Your task to perform on an android device: turn smart compose on in the gmail app Image 0: 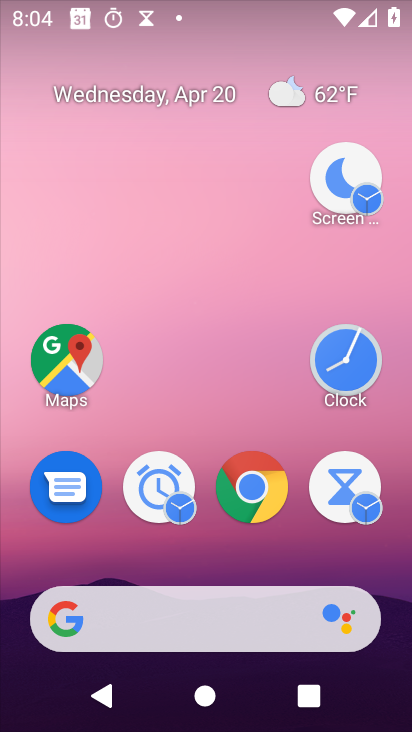
Step 0: drag from (268, 699) to (95, 29)
Your task to perform on an android device: turn smart compose on in the gmail app Image 1: 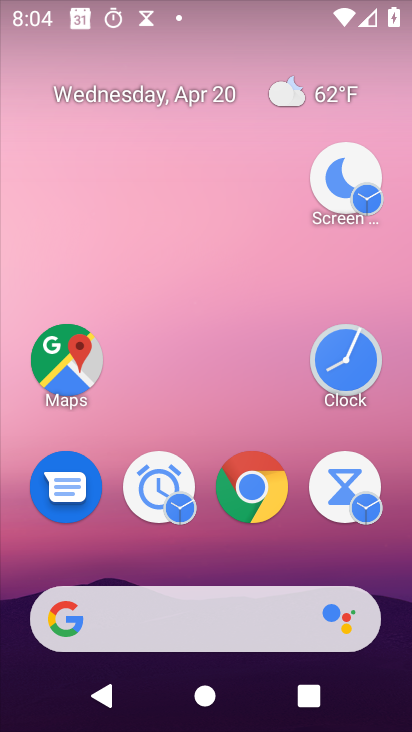
Step 1: drag from (178, 493) to (15, 76)
Your task to perform on an android device: turn smart compose on in the gmail app Image 2: 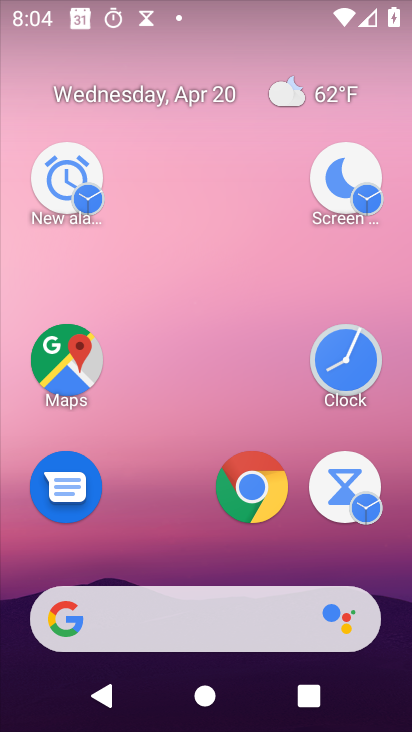
Step 2: drag from (171, 336) to (132, 112)
Your task to perform on an android device: turn smart compose on in the gmail app Image 3: 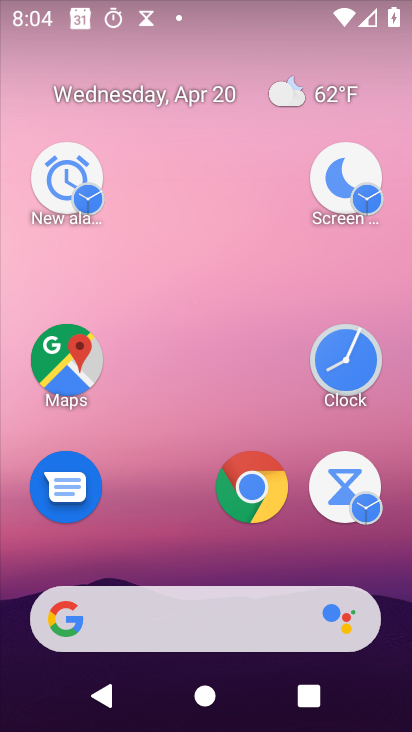
Step 3: drag from (265, 588) to (175, 378)
Your task to perform on an android device: turn smart compose on in the gmail app Image 4: 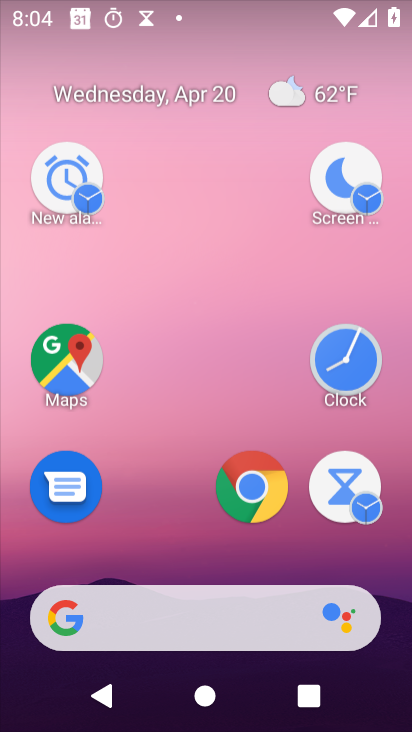
Step 4: drag from (368, 674) to (125, 191)
Your task to perform on an android device: turn smart compose on in the gmail app Image 5: 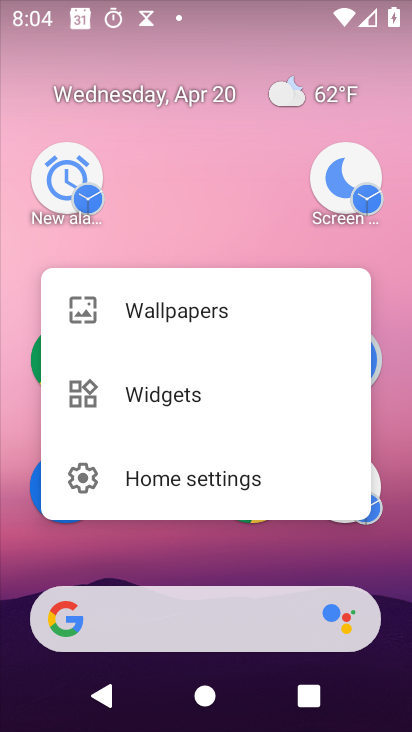
Step 5: drag from (179, 175) to (98, 204)
Your task to perform on an android device: turn smart compose on in the gmail app Image 6: 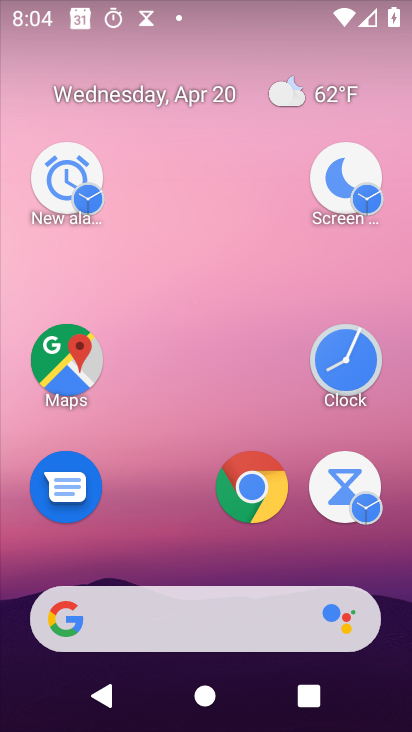
Step 6: click (177, 187)
Your task to perform on an android device: turn smart compose on in the gmail app Image 7: 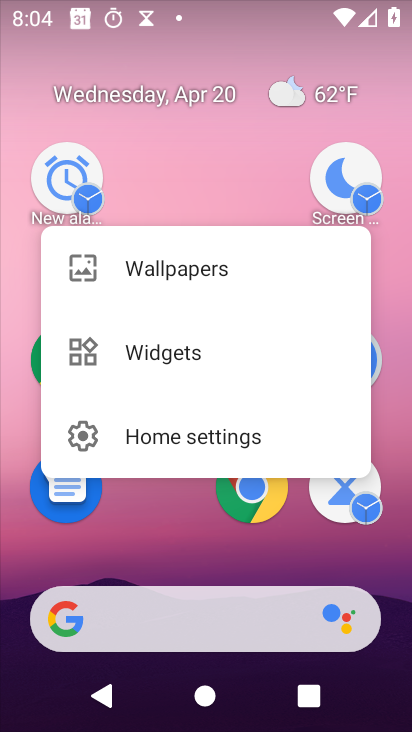
Step 7: drag from (257, 546) to (144, 102)
Your task to perform on an android device: turn smart compose on in the gmail app Image 8: 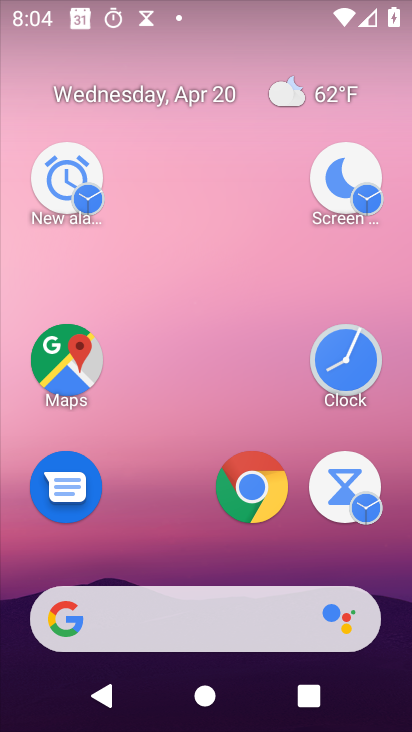
Step 8: click (179, 159)
Your task to perform on an android device: turn smart compose on in the gmail app Image 9: 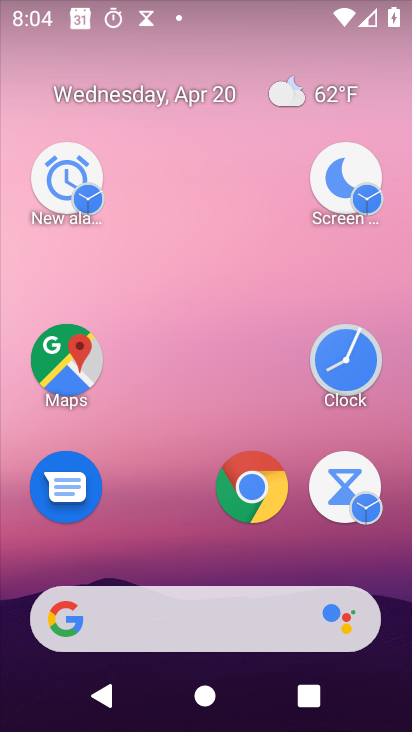
Step 9: drag from (140, 379) to (115, 176)
Your task to perform on an android device: turn smart compose on in the gmail app Image 10: 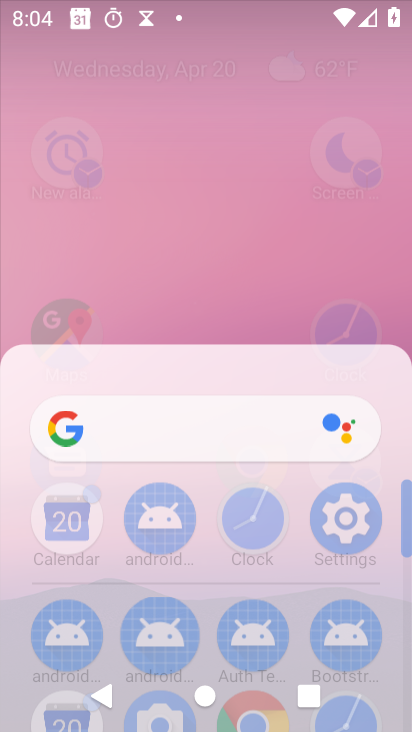
Step 10: drag from (274, 684) to (210, 496)
Your task to perform on an android device: turn smart compose on in the gmail app Image 11: 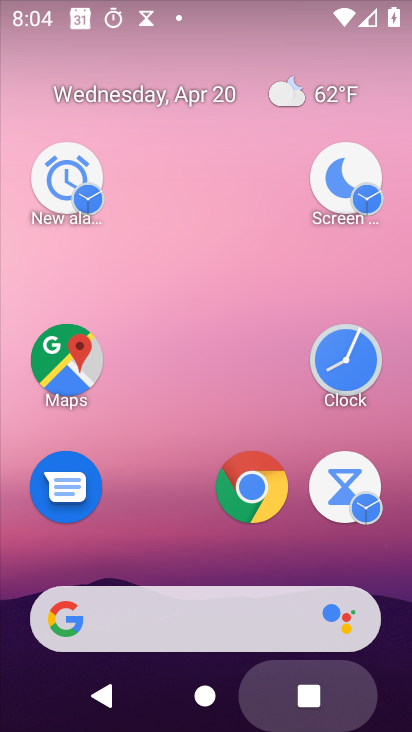
Step 11: drag from (238, 609) to (131, 195)
Your task to perform on an android device: turn smart compose on in the gmail app Image 12: 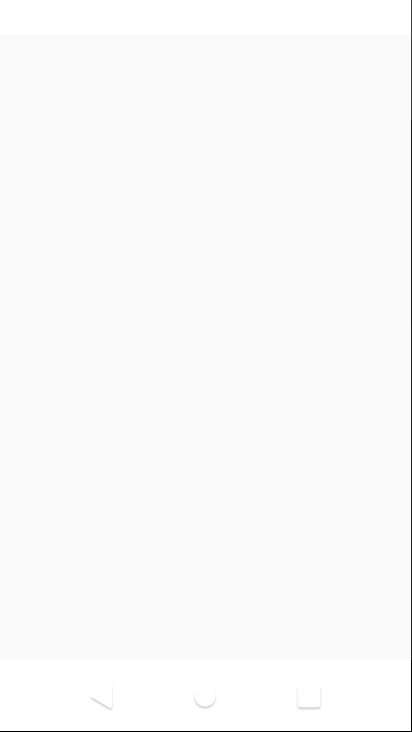
Step 12: drag from (238, 651) to (108, 182)
Your task to perform on an android device: turn smart compose on in the gmail app Image 13: 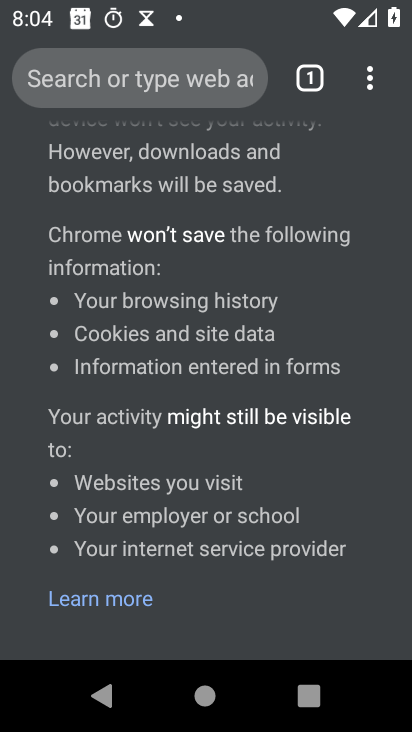
Step 13: press home button
Your task to perform on an android device: turn smart compose on in the gmail app Image 14: 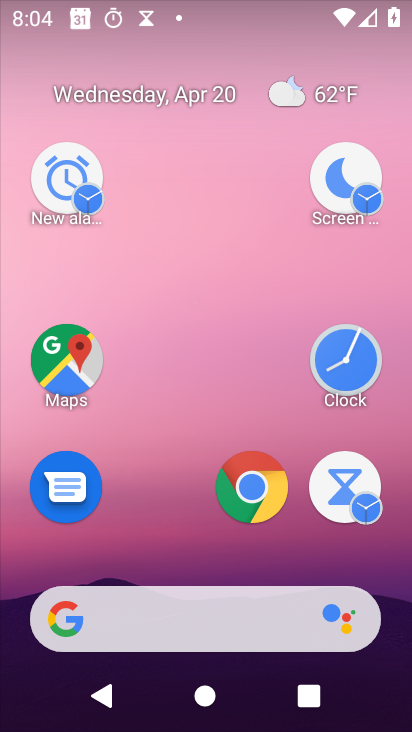
Step 14: drag from (236, 722) to (137, 271)
Your task to perform on an android device: turn smart compose on in the gmail app Image 15: 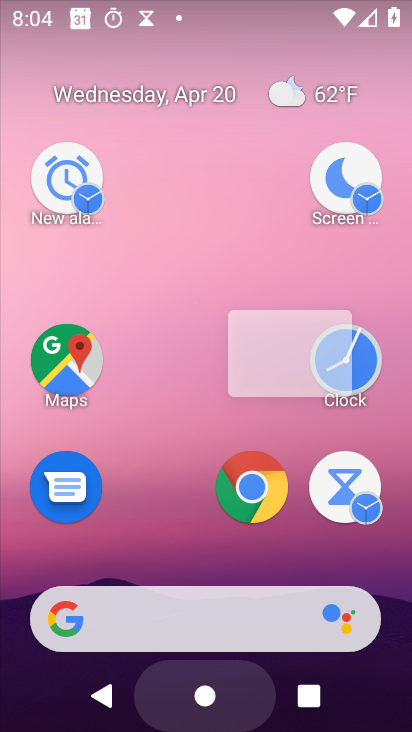
Step 15: drag from (342, 547) to (198, 288)
Your task to perform on an android device: turn smart compose on in the gmail app Image 16: 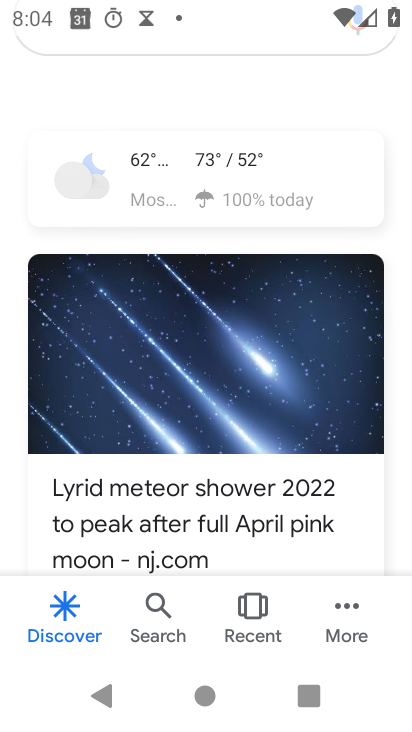
Step 16: press home button
Your task to perform on an android device: turn smart compose on in the gmail app Image 17: 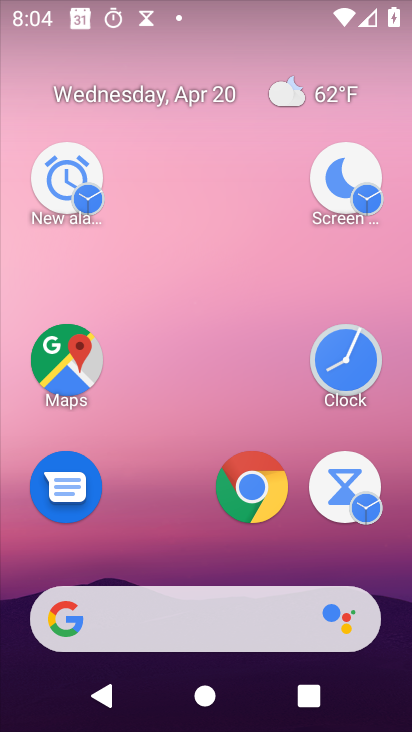
Step 17: drag from (349, 568) to (82, 139)
Your task to perform on an android device: turn smart compose on in the gmail app Image 18: 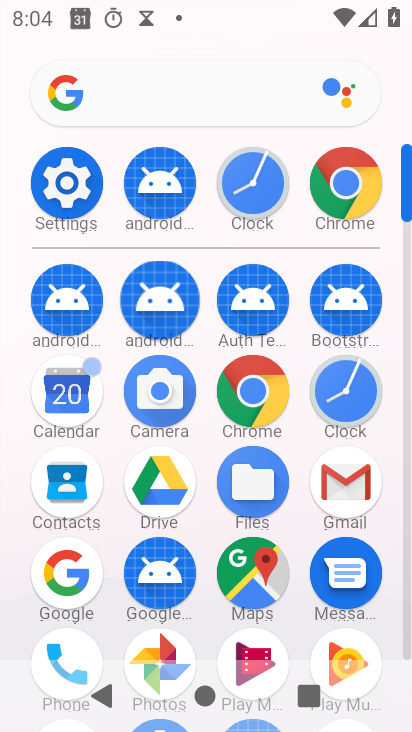
Step 18: drag from (302, 520) to (99, 225)
Your task to perform on an android device: turn smart compose on in the gmail app Image 19: 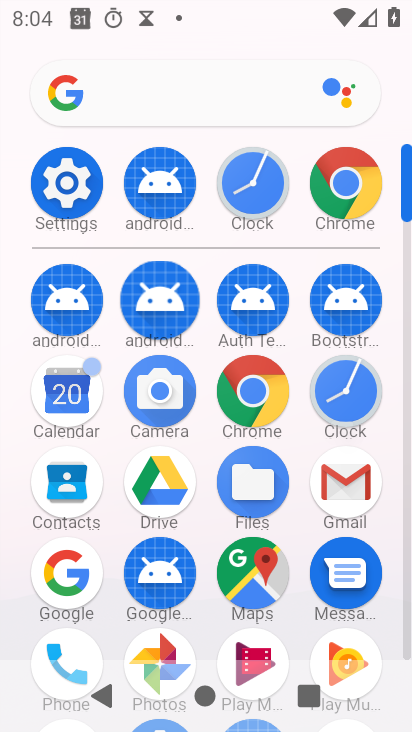
Step 19: click (336, 467)
Your task to perform on an android device: turn smart compose on in the gmail app Image 20: 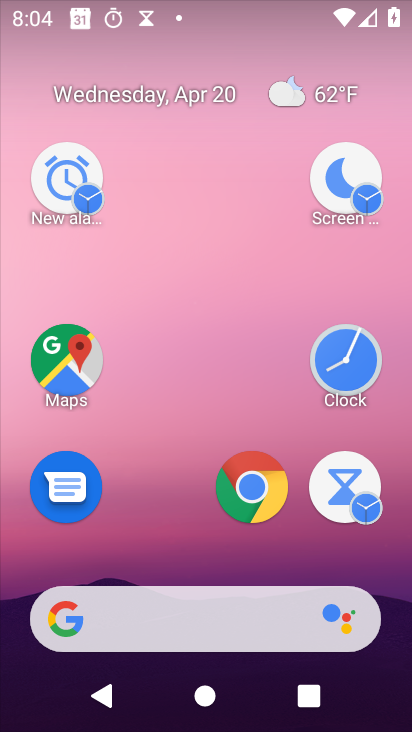
Step 20: drag from (369, 623) to (81, 167)
Your task to perform on an android device: turn smart compose on in the gmail app Image 21: 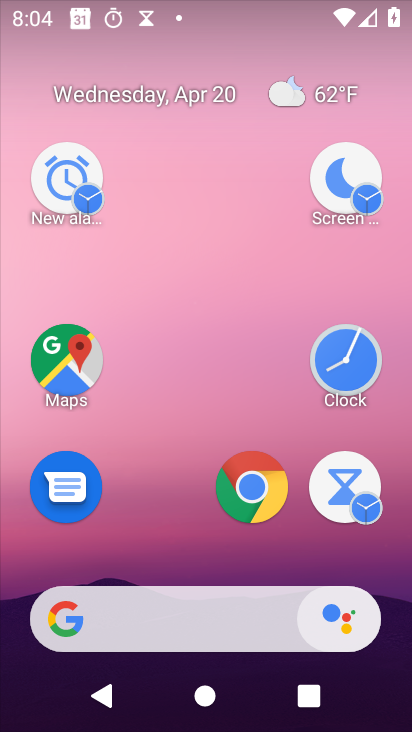
Step 21: drag from (301, 637) to (133, 237)
Your task to perform on an android device: turn smart compose on in the gmail app Image 22: 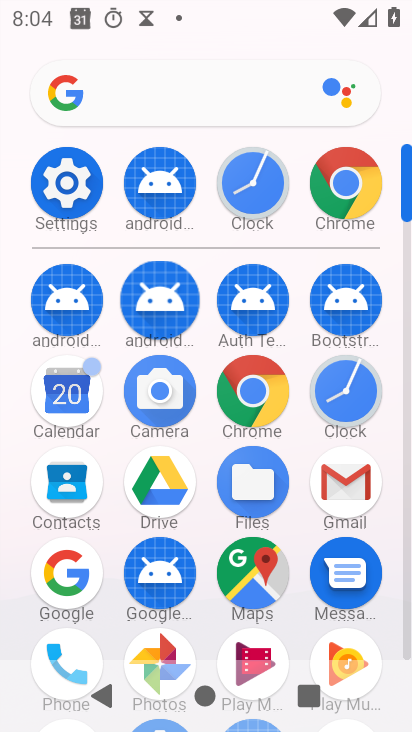
Step 22: click (342, 478)
Your task to perform on an android device: turn smart compose on in the gmail app Image 23: 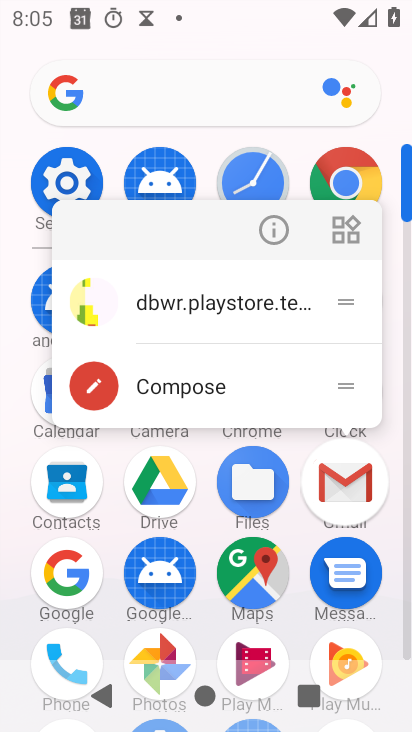
Step 23: click (342, 478)
Your task to perform on an android device: turn smart compose on in the gmail app Image 24: 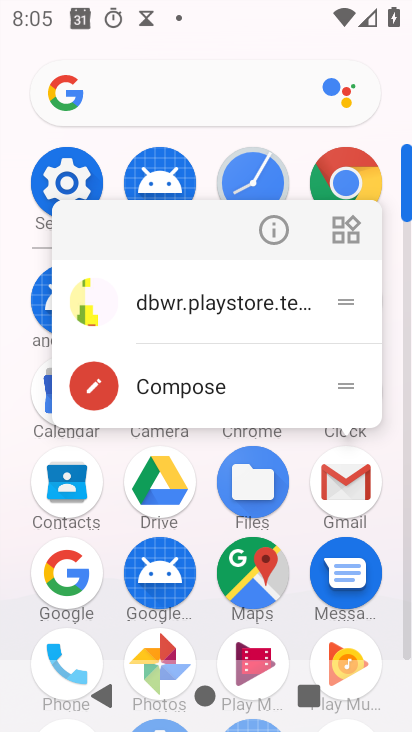
Step 24: click (194, 377)
Your task to perform on an android device: turn smart compose on in the gmail app Image 25: 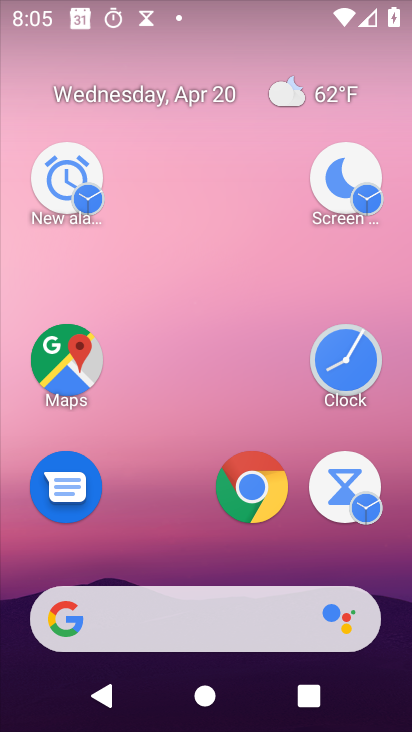
Step 25: drag from (375, 610) to (196, 218)
Your task to perform on an android device: turn smart compose on in the gmail app Image 26: 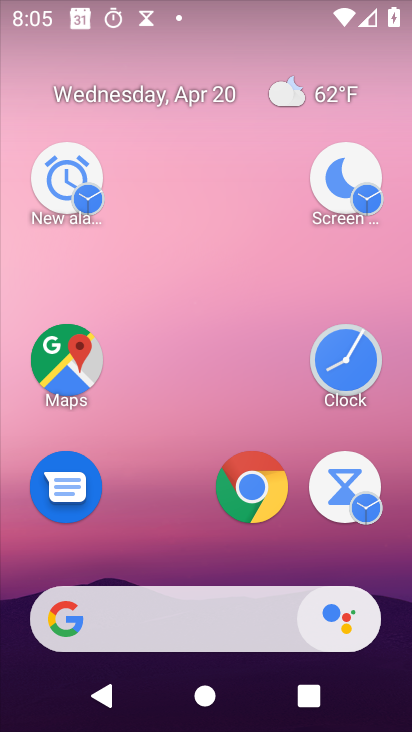
Step 26: drag from (300, 650) to (165, 64)
Your task to perform on an android device: turn smart compose on in the gmail app Image 27: 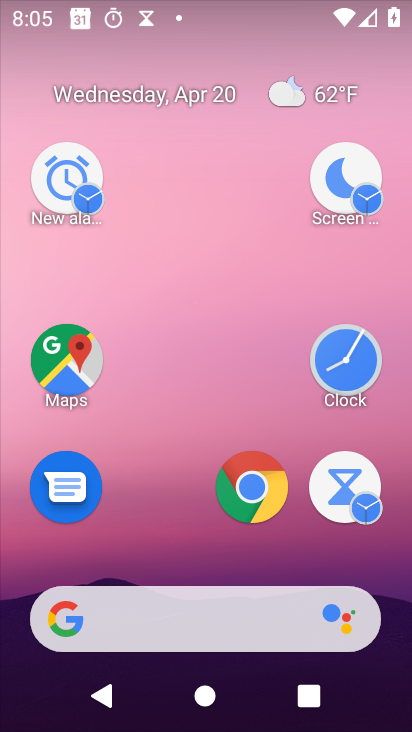
Step 27: drag from (380, 676) to (105, 49)
Your task to perform on an android device: turn smart compose on in the gmail app Image 28: 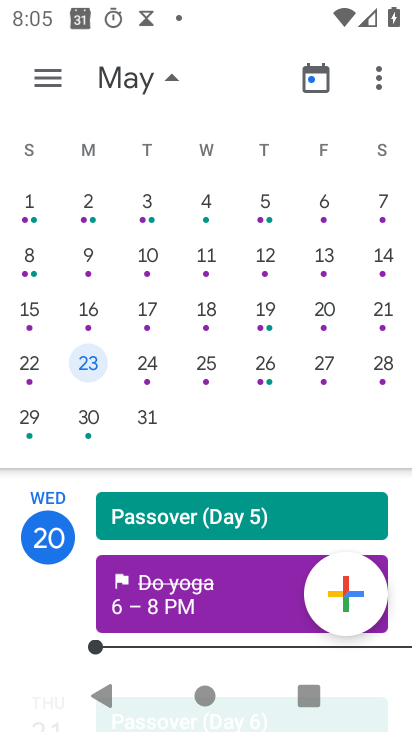
Step 28: press home button
Your task to perform on an android device: turn smart compose on in the gmail app Image 29: 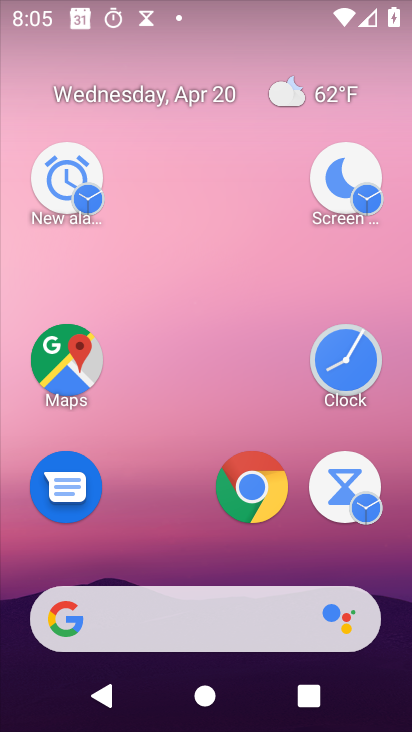
Step 29: drag from (382, 582) to (90, 69)
Your task to perform on an android device: turn smart compose on in the gmail app Image 30: 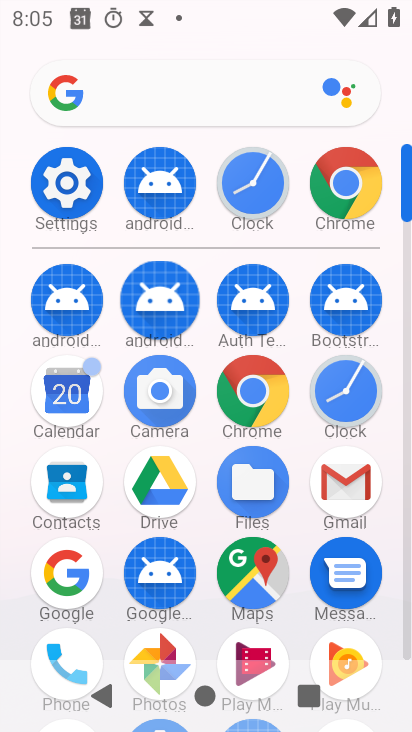
Step 30: drag from (378, 560) to (228, 180)
Your task to perform on an android device: turn smart compose on in the gmail app Image 31: 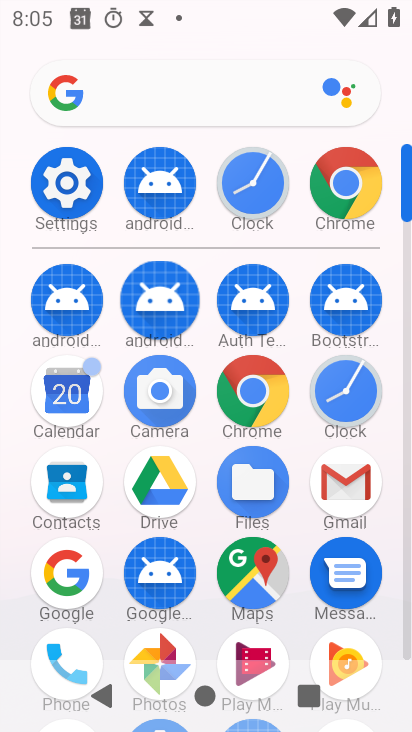
Step 31: click (351, 465)
Your task to perform on an android device: turn smart compose on in the gmail app Image 32: 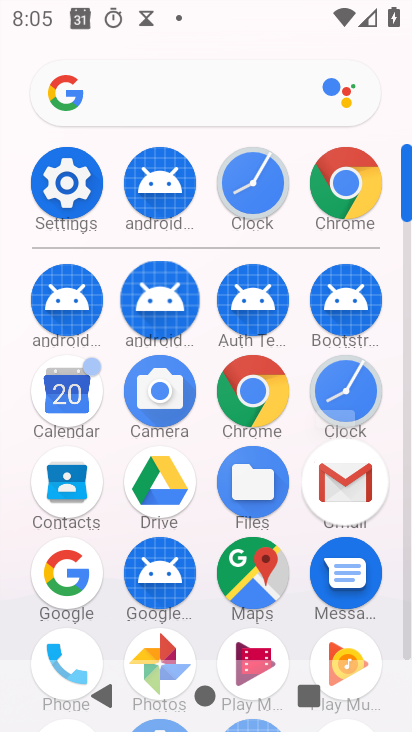
Step 32: click (339, 484)
Your task to perform on an android device: turn smart compose on in the gmail app Image 33: 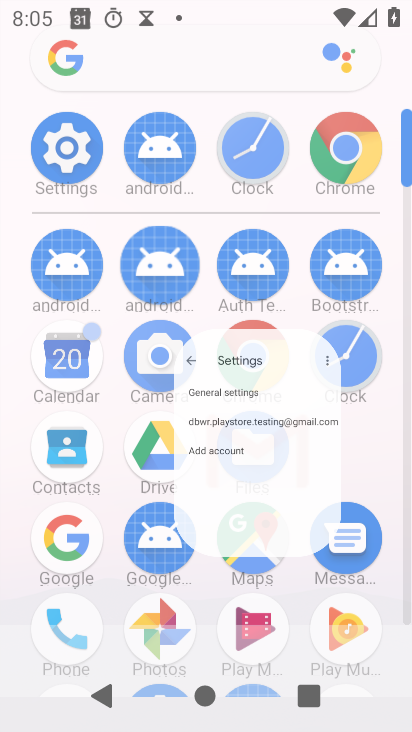
Step 33: click (339, 484)
Your task to perform on an android device: turn smart compose on in the gmail app Image 34: 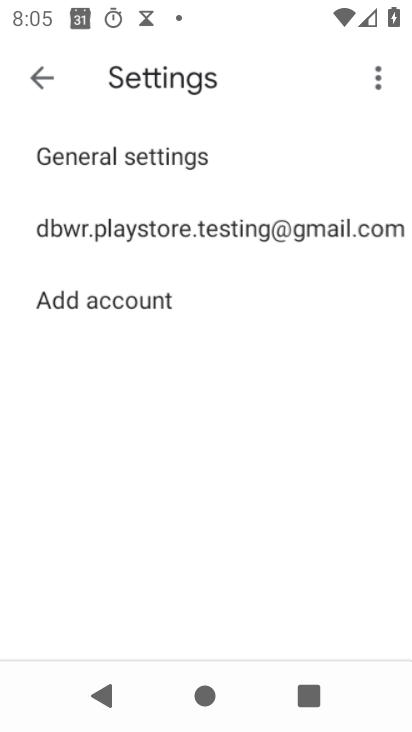
Step 34: click (339, 484)
Your task to perform on an android device: turn smart compose on in the gmail app Image 35: 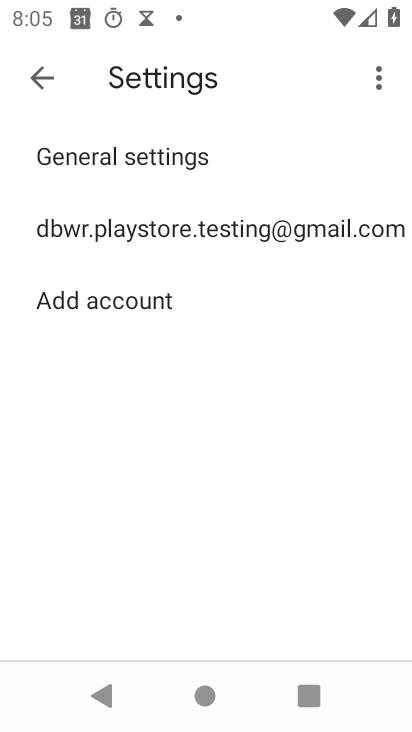
Step 35: click (149, 223)
Your task to perform on an android device: turn smart compose on in the gmail app Image 36: 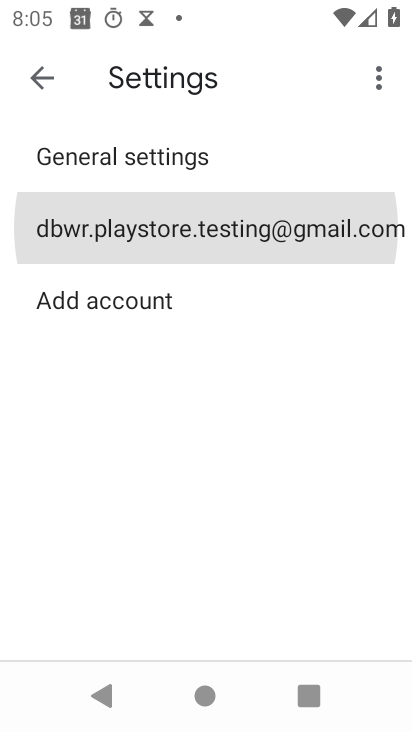
Step 36: click (149, 223)
Your task to perform on an android device: turn smart compose on in the gmail app Image 37: 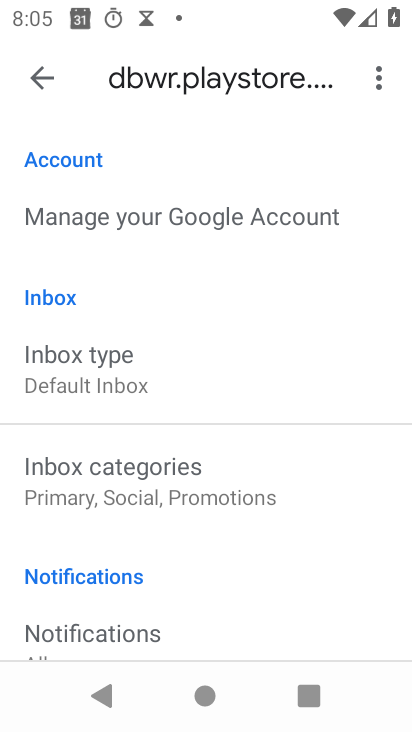
Step 37: task complete